Your task to perform on an android device: View the shopping cart on costco. Search for "logitech g502" on costco, select the first entry, and add it to the cart. Image 0: 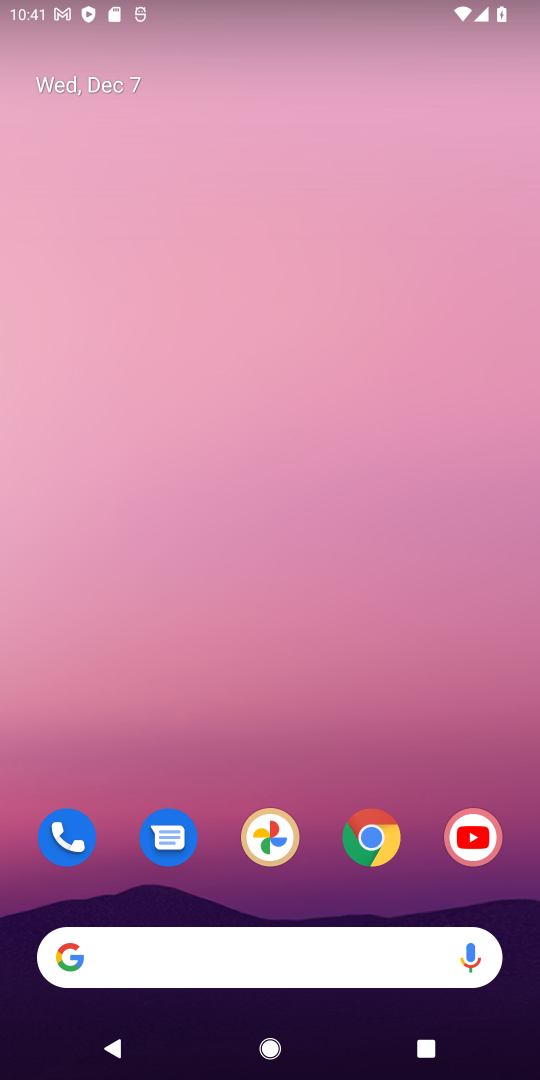
Step 0: click (368, 835)
Your task to perform on an android device: View the shopping cart on costco. Search for "logitech g502" on costco, select the first entry, and add it to the cart. Image 1: 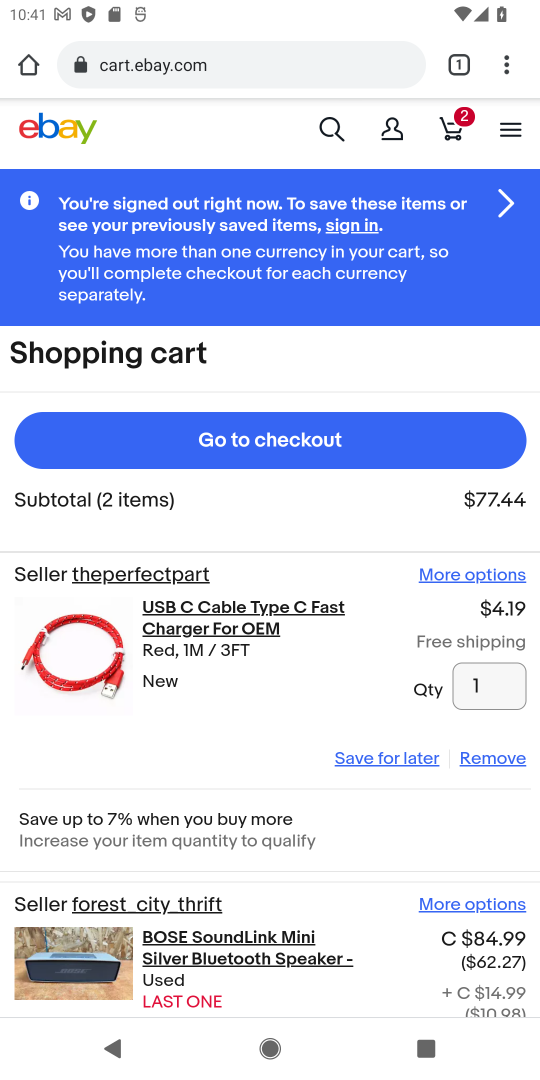
Step 1: click (268, 75)
Your task to perform on an android device: View the shopping cart on costco. Search for "logitech g502" on costco, select the first entry, and add it to the cart. Image 2: 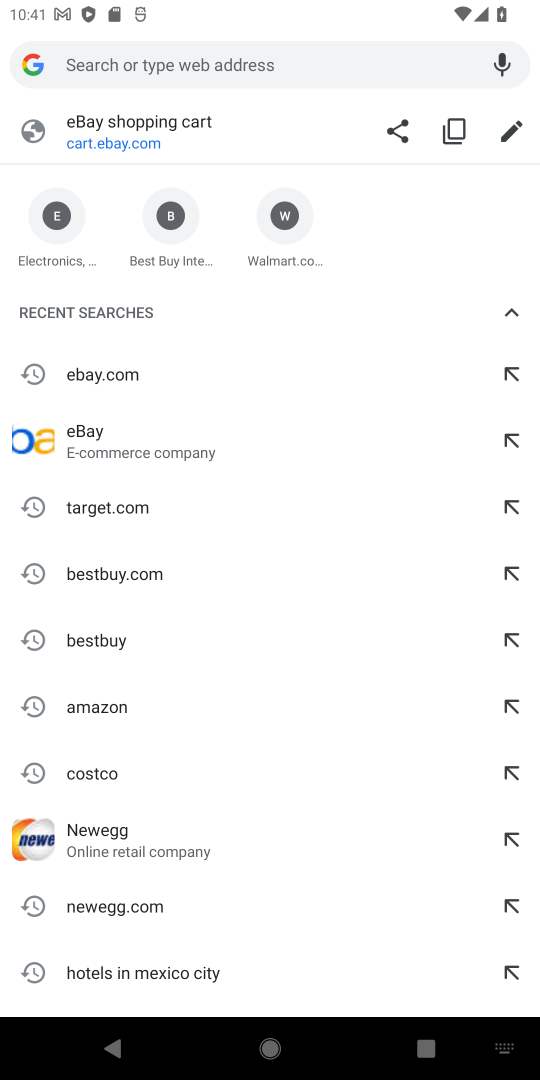
Step 2: type "costco"
Your task to perform on an android device: View the shopping cart on costco. Search for "logitech g502" on costco, select the first entry, and add it to the cart. Image 3: 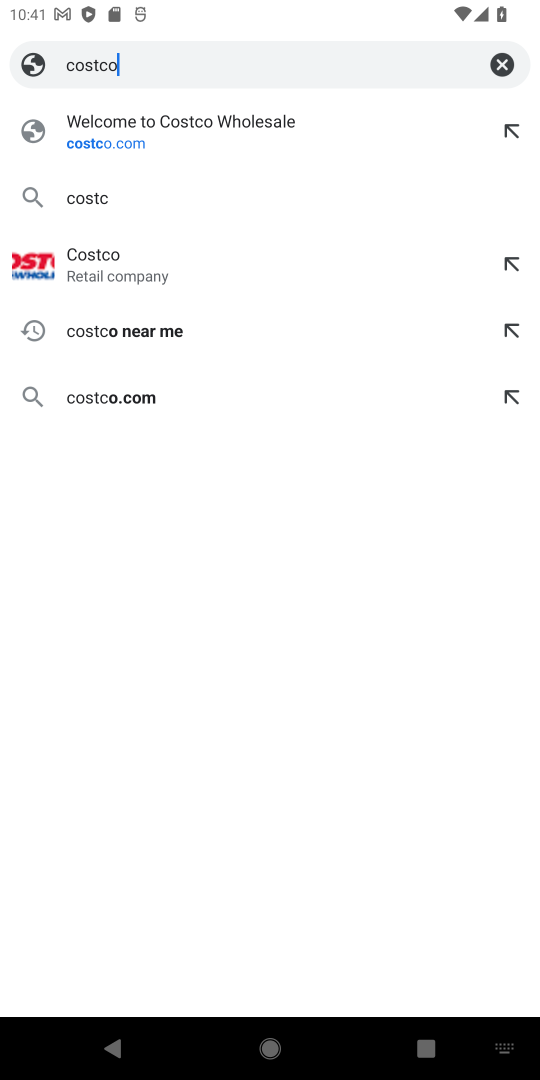
Step 3: press enter
Your task to perform on an android device: View the shopping cart on costco. Search for "logitech g502" on costco, select the first entry, and add it to the cart. Image 4: 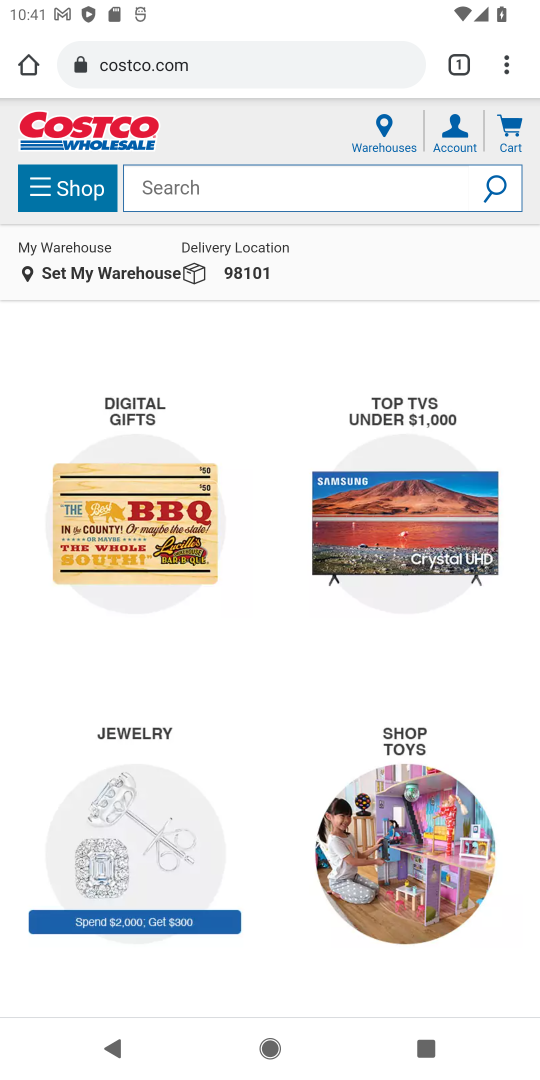
Step 4: click (509, 137)
Your task to perform on an android device: View the shopping cart on costco. Search for "logitech g502" on costco, select the first entry, and add it to the cart. Image 5: 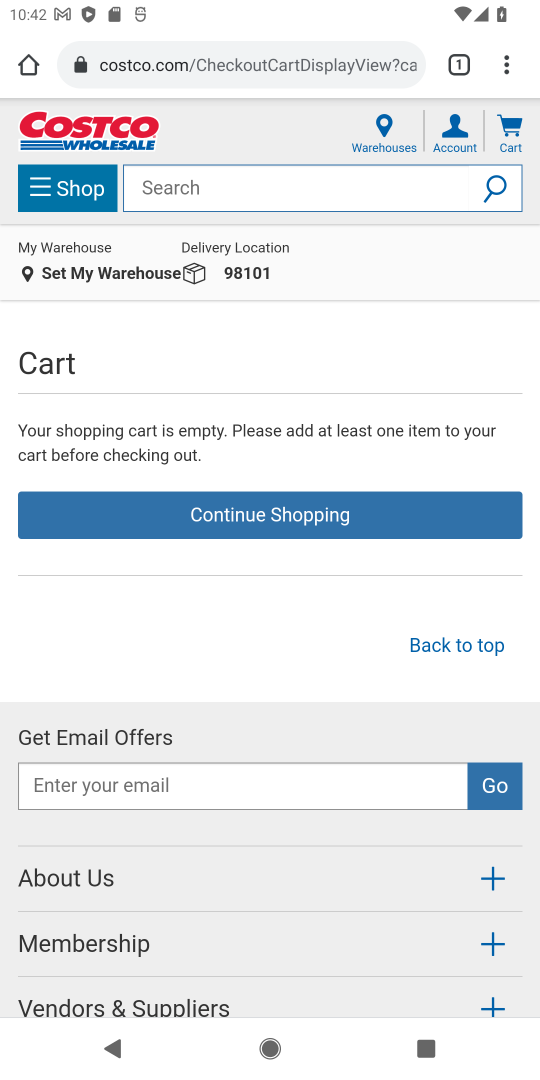
Step 5: click (294, 183)
Your task to perform on an android device: View the shopping cart on costco. Search for "logitech g502" on costco, select the first entry, and add it to the cart. Image 6: 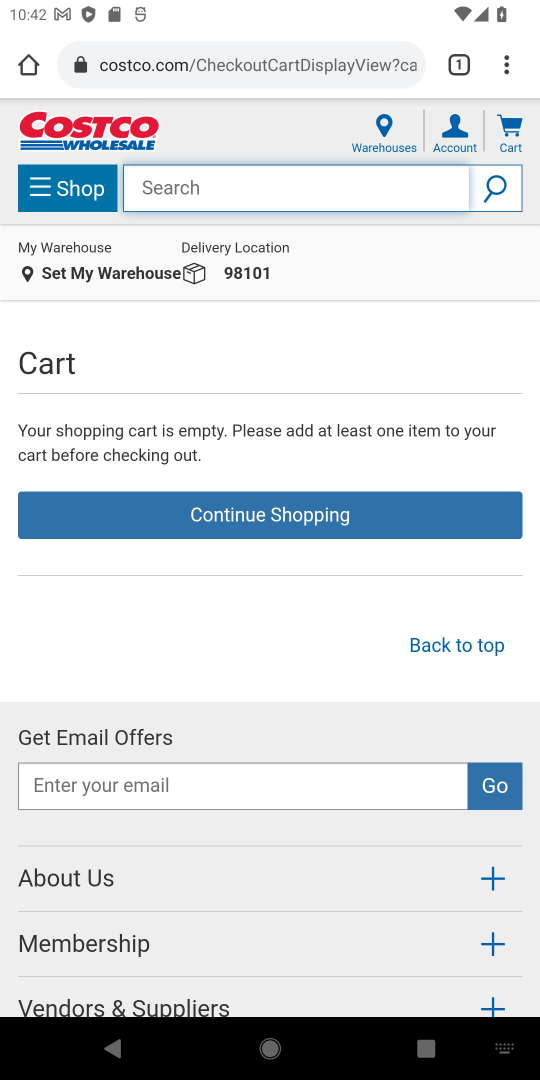
Step 6: type "logitech g502"
Your task to perform on an android device: View the shopping cart on costco. Search for "logitech g502" on costco, select the first entry, and add it to the cart. Image 7: 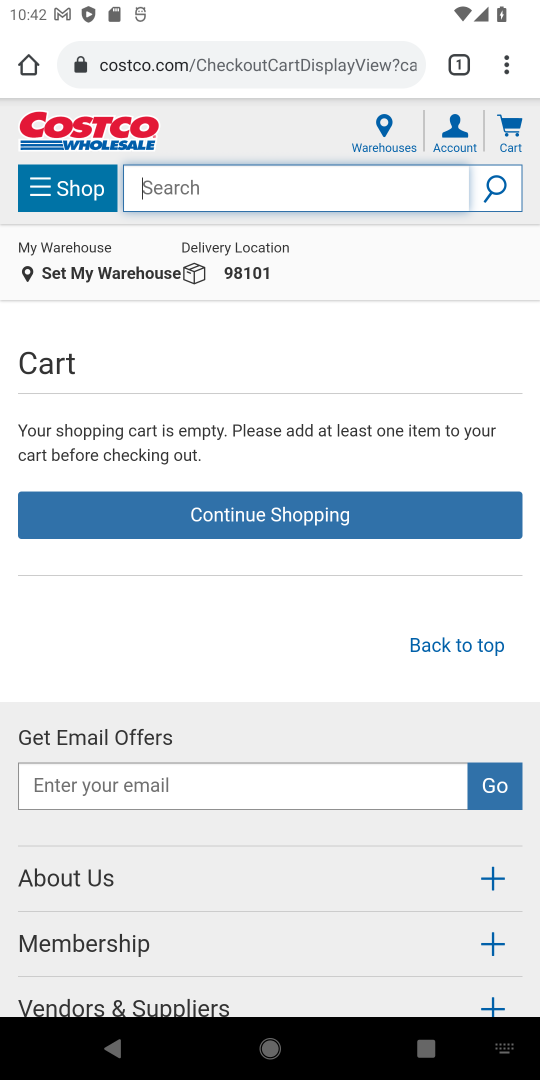
Step 7: press enter
Your task to perform on an android device: View the shopping cart on costco. Search for "logitech g502" on costco, select the first entry, and add it to the cart. Image 8: 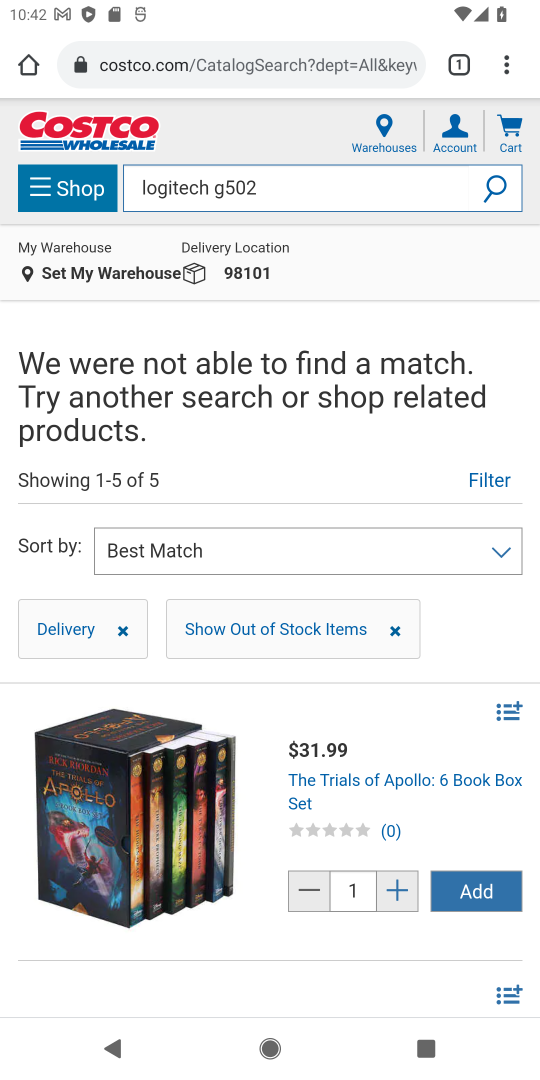
Step 8: task complete